Your task to perform on an android device: What's the weather going to be tomorrow? Image 0: 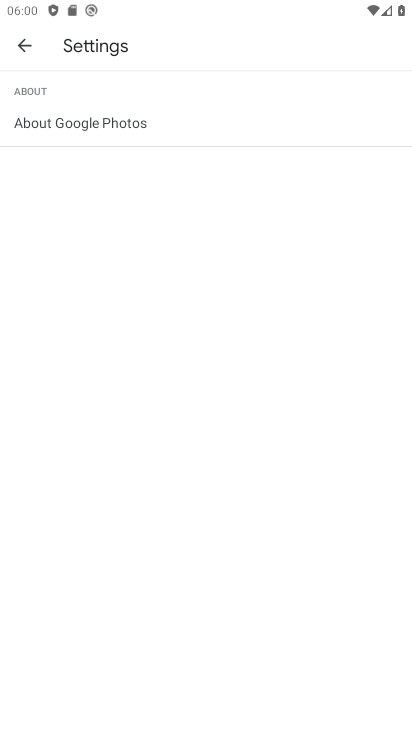
Step 0: press home button
Your task to perform on an android device: What's the weather going to be tomorrow? Image 1: 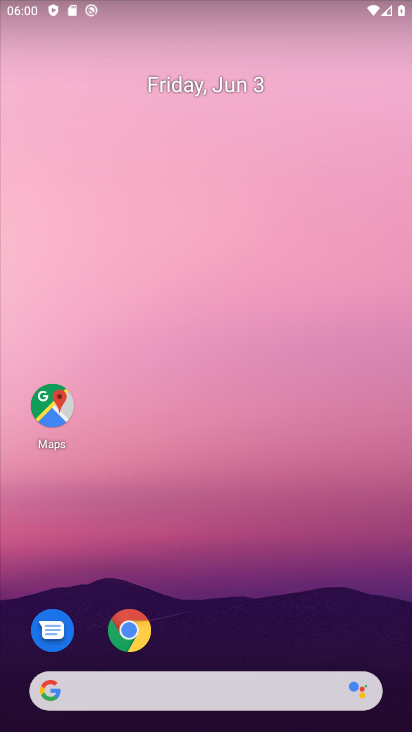
Step 1: click (287, 683)
Your task to perform on an android device: What's the weather going to be tomorrow? Image 2: 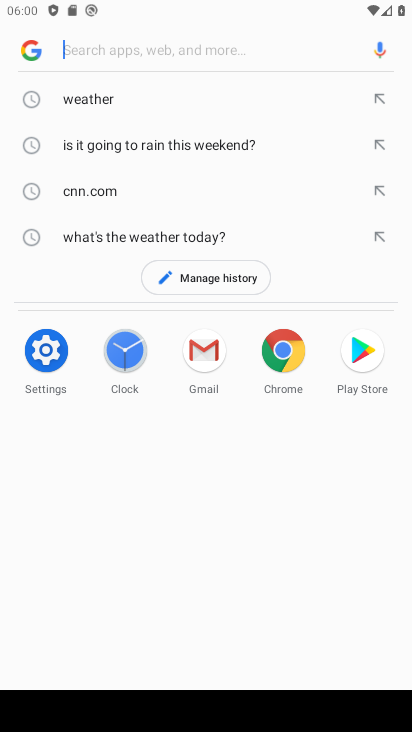
Step 2: click (192, 103)
Your task to perform on an android device: What's the weather going to be tomorrow? Image 3: 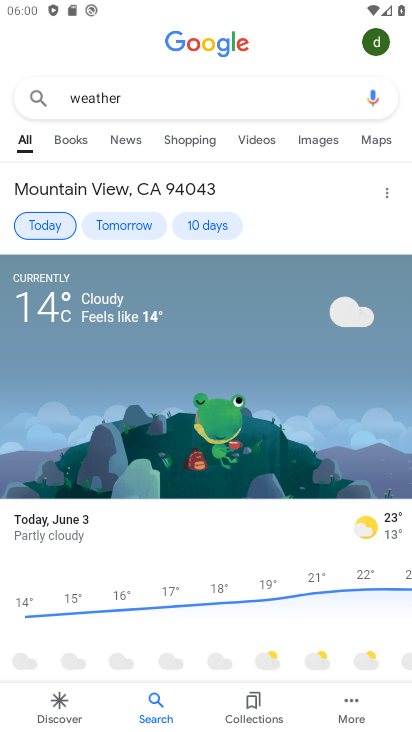
Step 3: click (139, 226)
Your task to perform on an android device: What's the weather going to be tomorrow? Image 4: 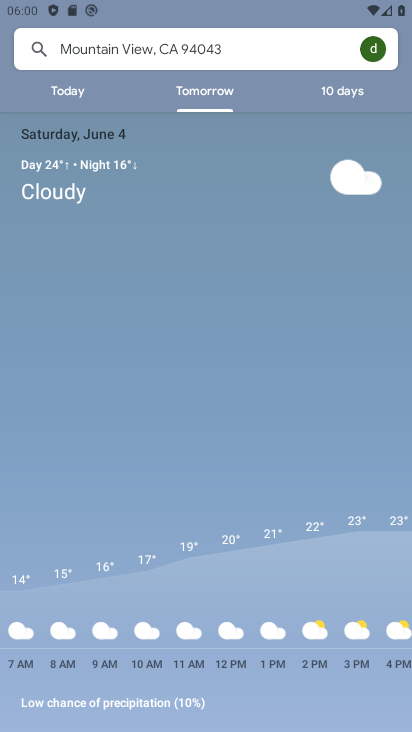
Step 4: task complete